Your task to perform on an android device: Open the stopwatch Image 0: 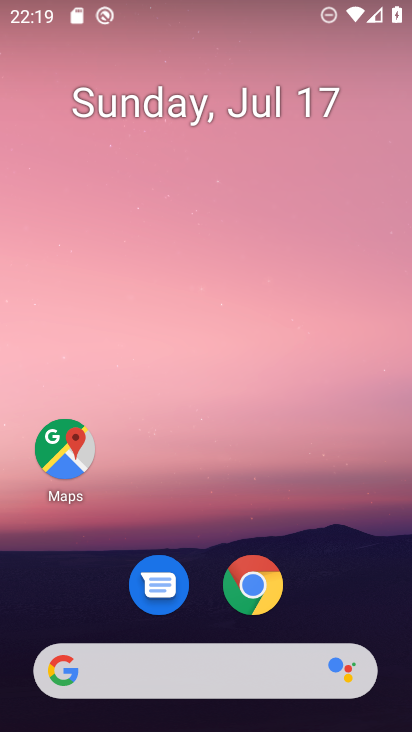
Step 0: press home button
Your task to perform on an android device: Open the stopwatch Image 1: 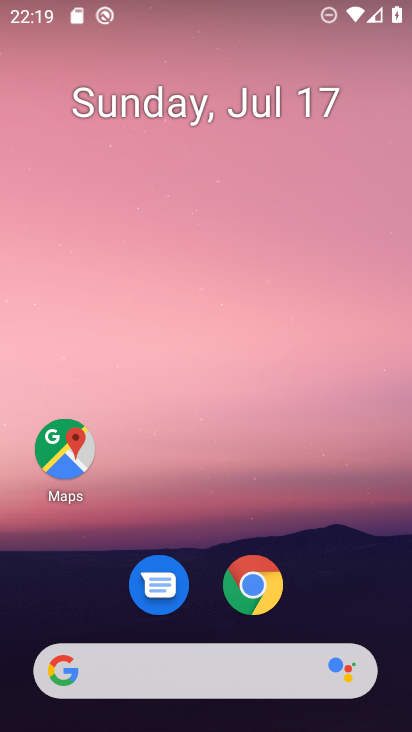
Step 1: drag from (200, 673) to (336, 105)
Your task to perform on an android device: Open the stopwatch Image 2: 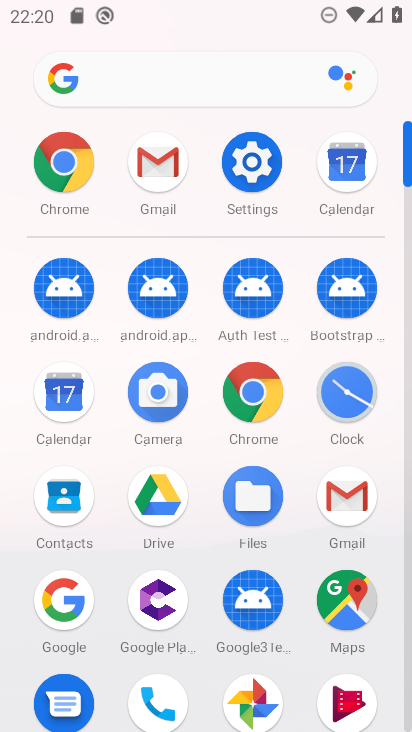
Step 2: click (347, 397)
Your task to perform on an android device: Open the stopwatch Image 3: 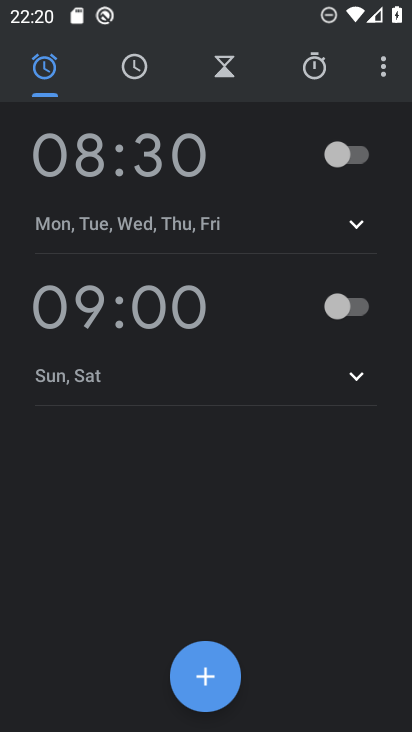
Step 3: click (312, 73)
Your task to perform on an android device: Open the stopwatch Image 4: 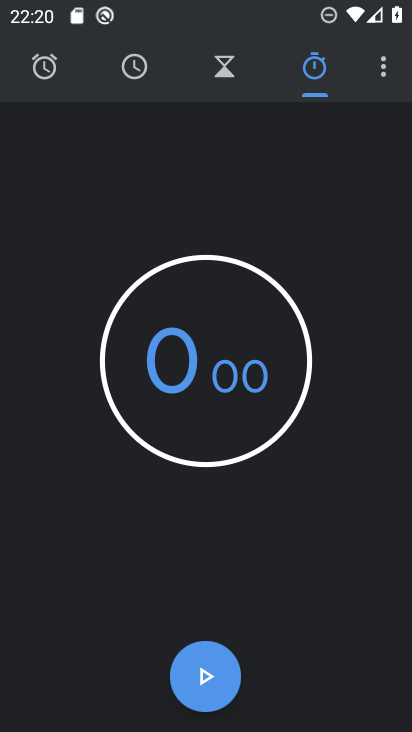
Step 4: task complete